Your task to perform on an android device: Open sound settings Image 0: 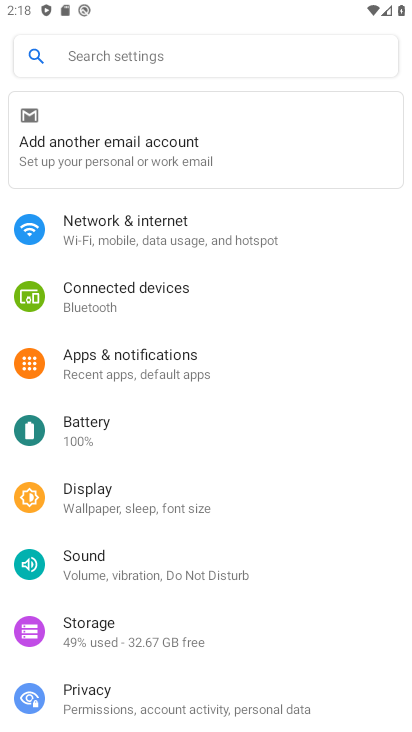
Step 0: click (84, 569)
Your task to perform on an android device: Open sound settings Image 1: 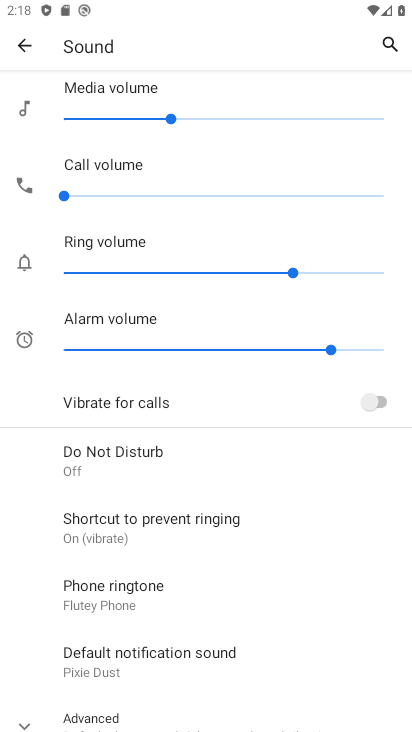
Step 1: task complete